Your task to perform on an android device: Go to accessibility settings Image 0: 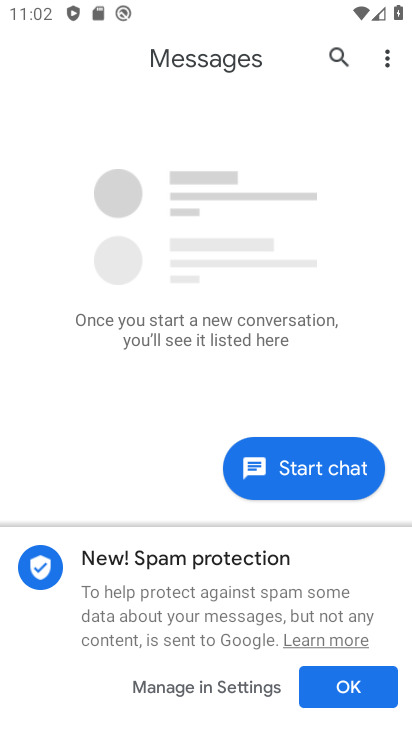
Step 0: press home button
Your task to perform on an android device: Go to accessibility settings Image 1: 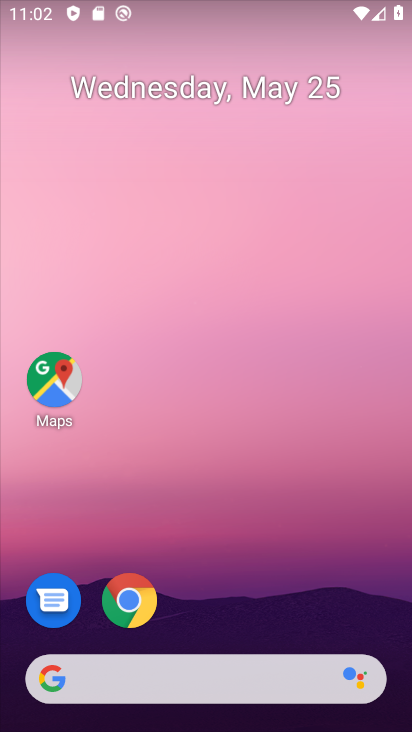
Step 1: drag from (236, 462) to (229, 128)
Your task to perform on an android device: Go to accessibility settings Image 2: 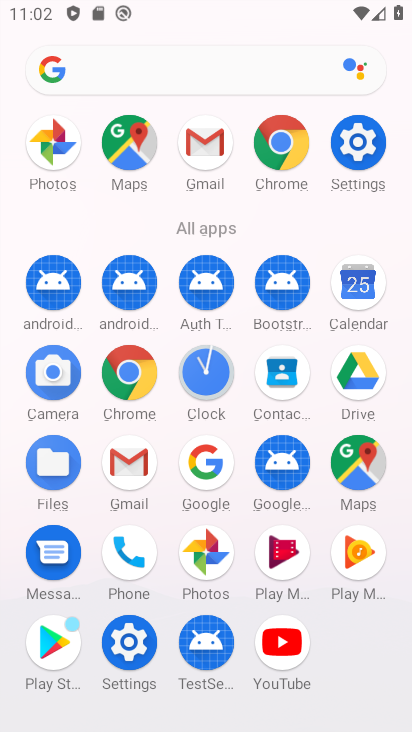
Step 2: click (356, 144)
Your task to perform on an android device: Go to accessibility settings Image 3: 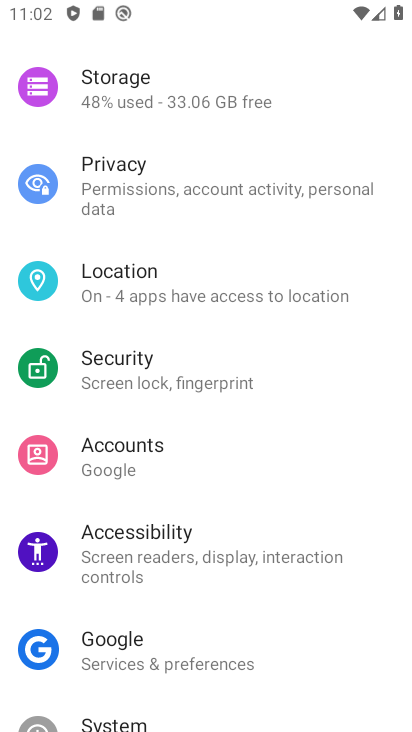
Step 3: click (197, 563)
Your task to perform on an android device: Go to accessibility settings Image 4: 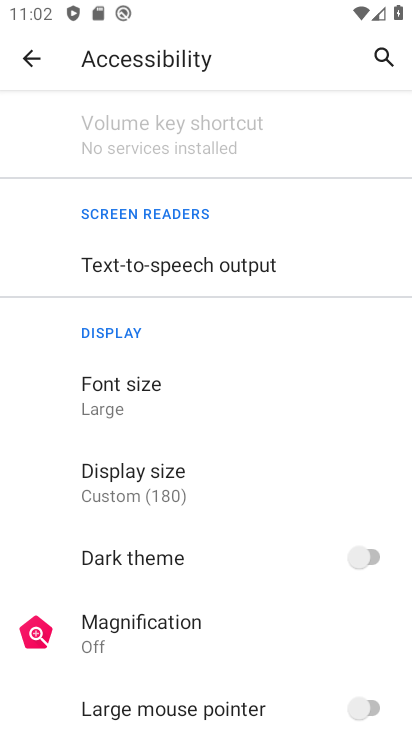
Step 4: task complete